Your task to perform on an android device: open app "Instagram" (install if not already installed) and enter user name: "nobler@yahoo.com" and password: "foraging" Image 0: 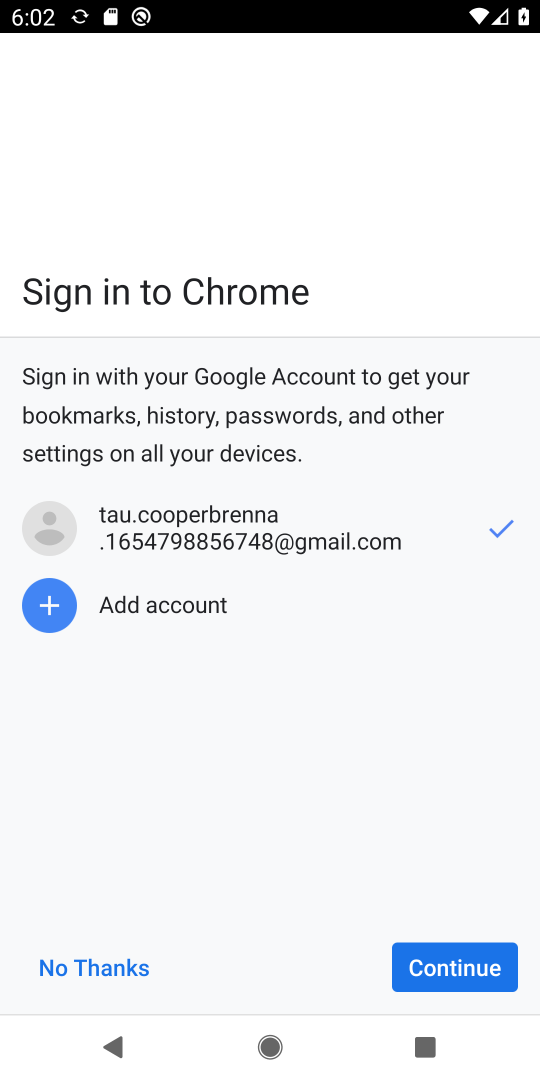
Step 0: press home button
Your task to perform on an android device: open app "Instagram" (install if not already installed) and enter user name: "nobler@yahoo.com" and password: "foraging" Image 1: 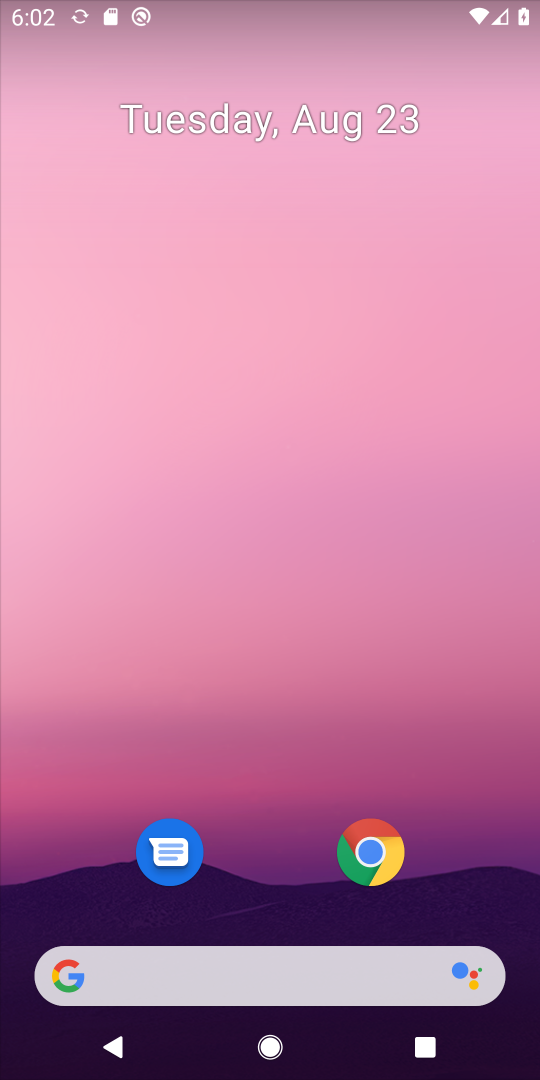
Step 1: drag from (212, 970) to (325, 47)
Your task to perform on an android device: open app "Instagram" (install if not already installed) and enter user name: "nobler@yahoo.com" and password: "foraging" Image 2: 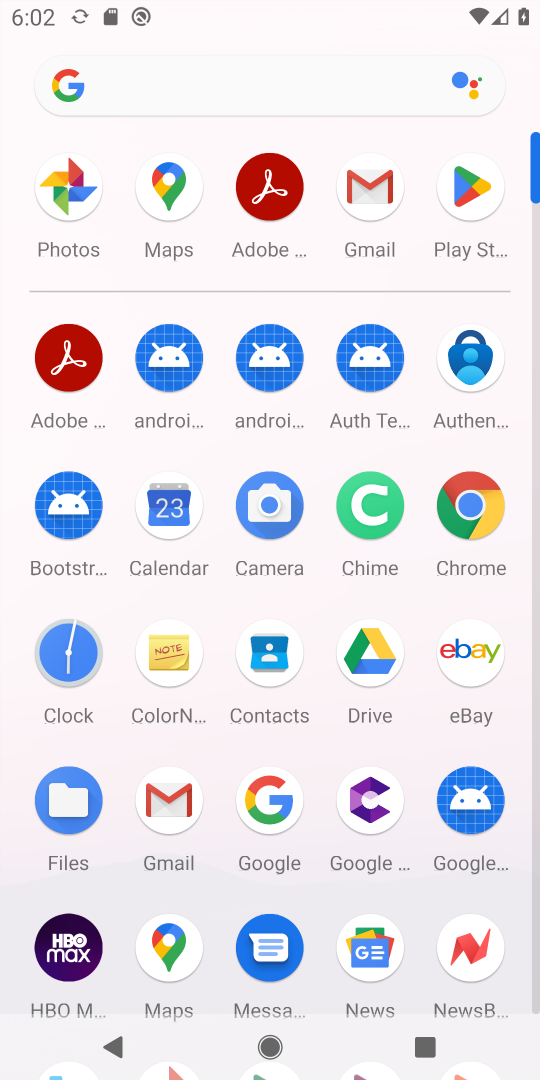
Step 2: click (471, 192)
Your task to perform on an android device: open app "Instagram" (install if not already installed) and enter user name: "nobler@yahoo.com" and password: "foraging" Image 3: 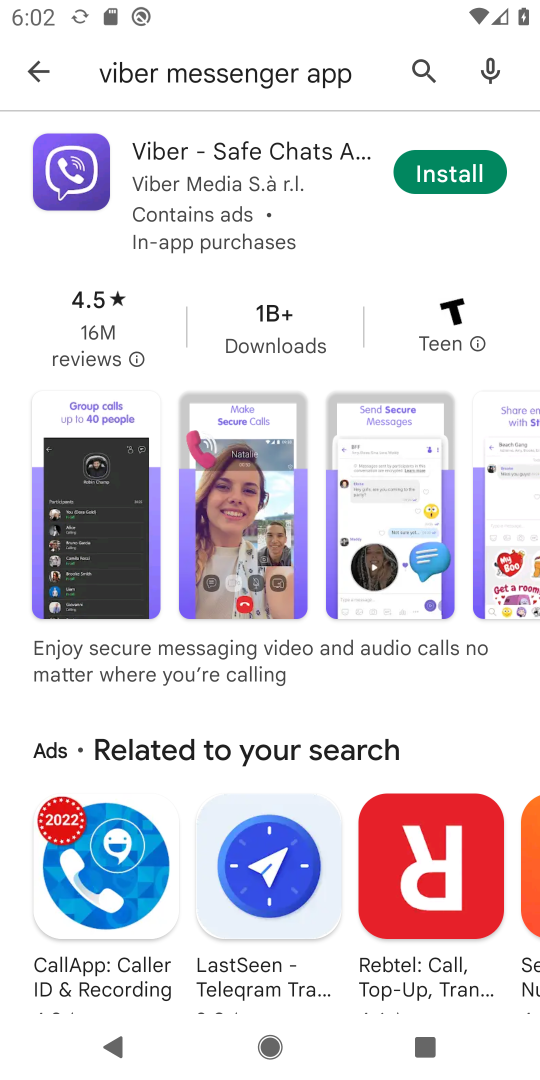
Step 3: press back button
Your task to perform on an android device: open app "Instagram" (install if not already installed) and enter user name: "nobler@yahoo.com" and password: "foraging" Image 4: 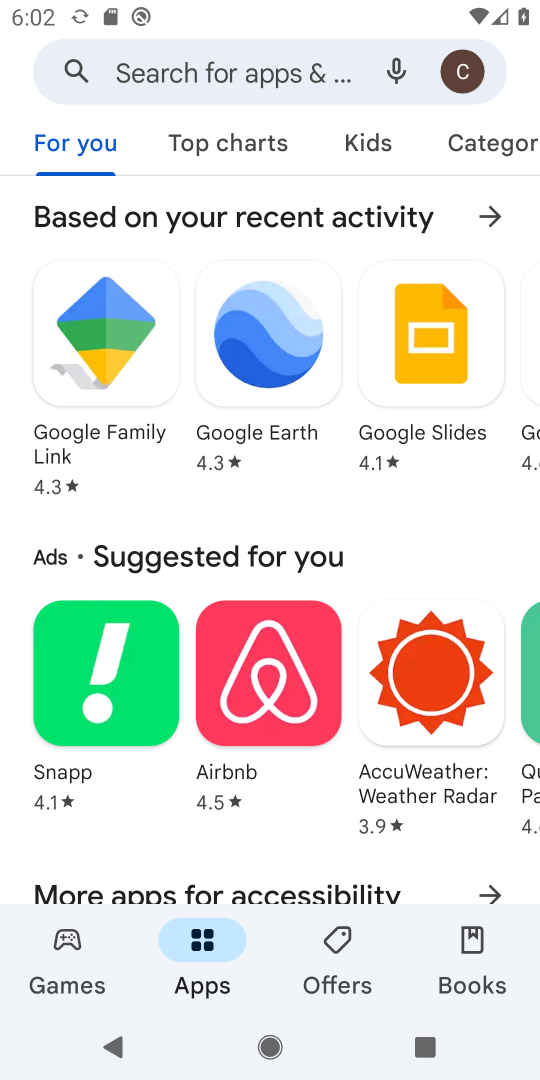
Step 4: click (267, 68)
Your task to perform on an android device: open app "Instagram" (install if not already installed) and enter user name: "nobler@yahoo.com" and password: "foraging" Image 5: 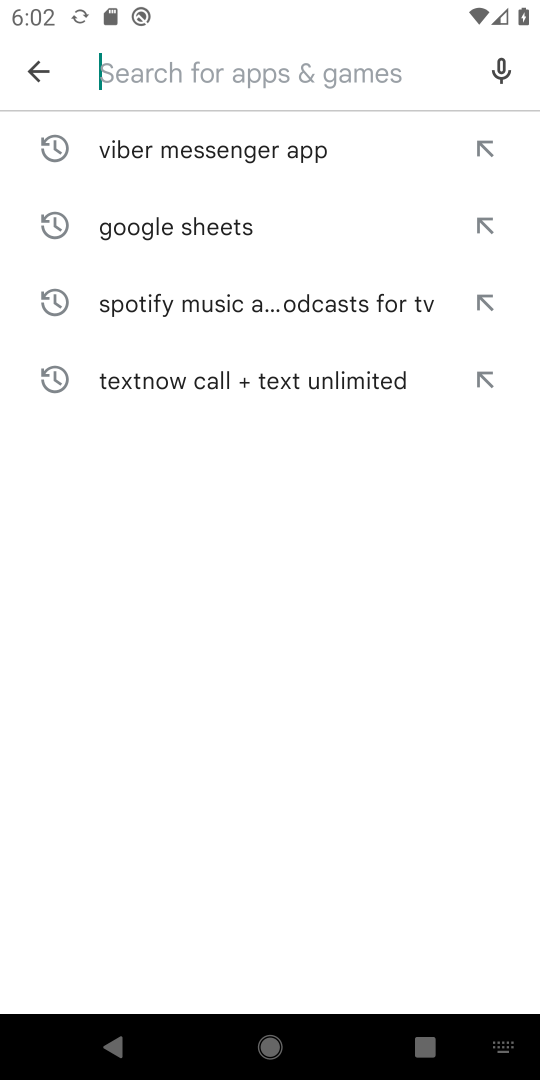
Step 5: type "instagram"
Your task to perform on an android device: open app "Instagram" (install if not already installed) and enter user name: "nobler@yahoo.com" and password: "foraging" Image 6: 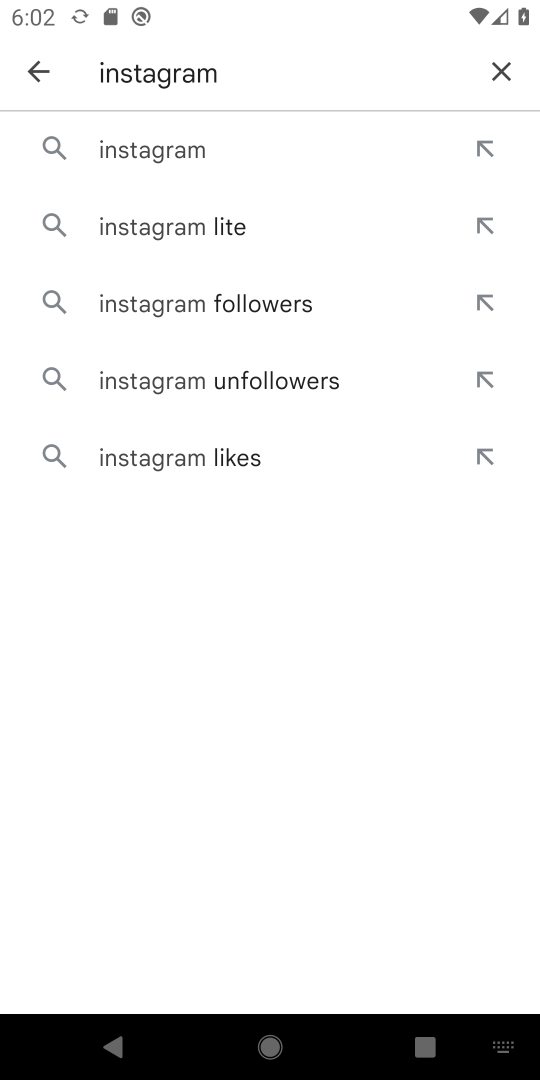
Step 6: click (193, 161)
Your task to perform on an android device: open app "Instagram" (install if not already installed) and enter user name: "nobler@yahoo.com" and password: "foraging" Image 7: 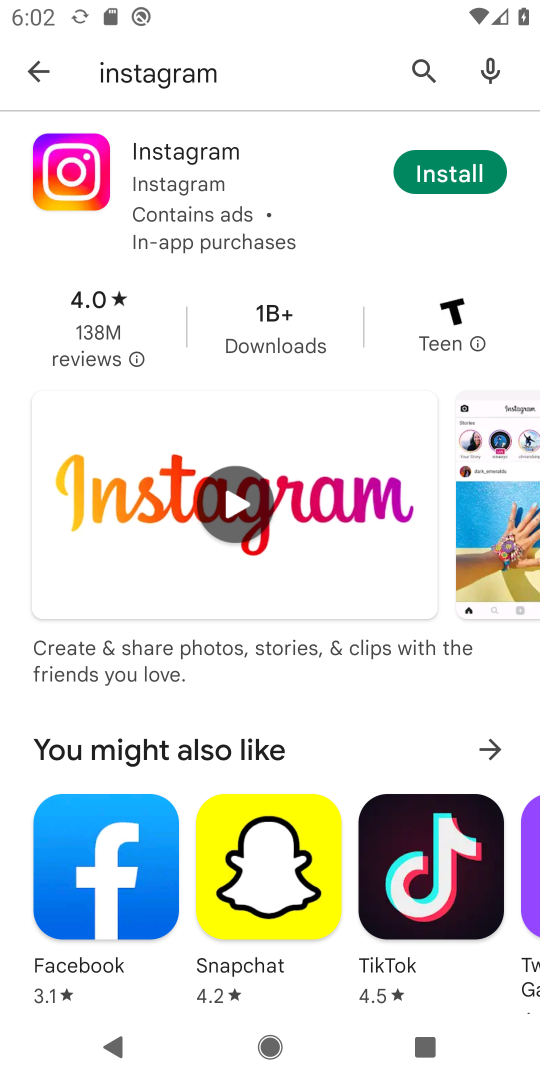
Step 7: click (449, 177)
Your task to perform on an android device: open app "Instagram" (install if not already installed) and enter user name: "nobler@yahoo.com" and password: "foraging" Image 8: 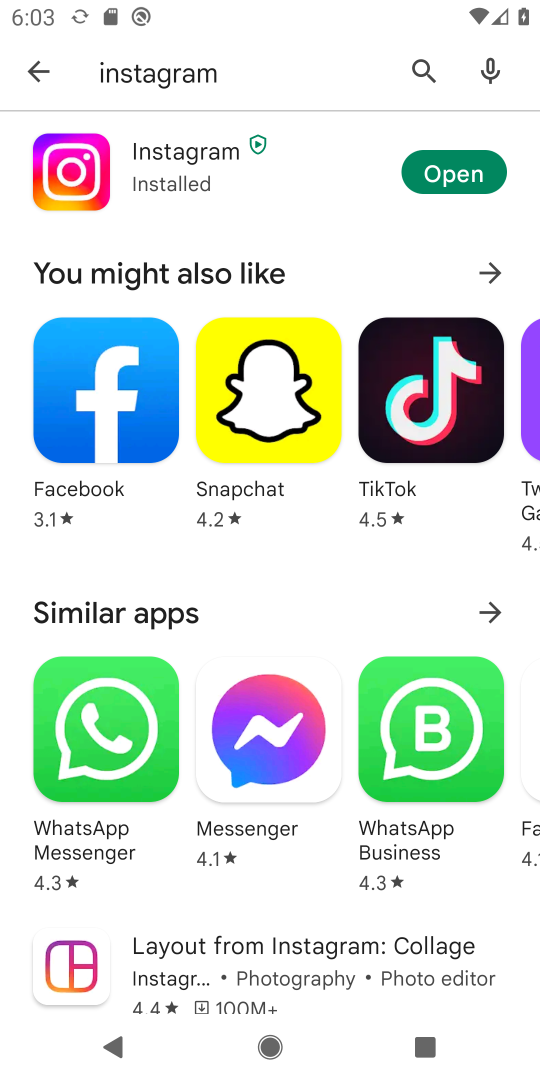
Step 8: click (457, 172)
Your task to perform on an android device: open app "Instagram" (install if not already installed) and enter user name: "nobler@yahoo.com" and password: "foraging" Image 9: 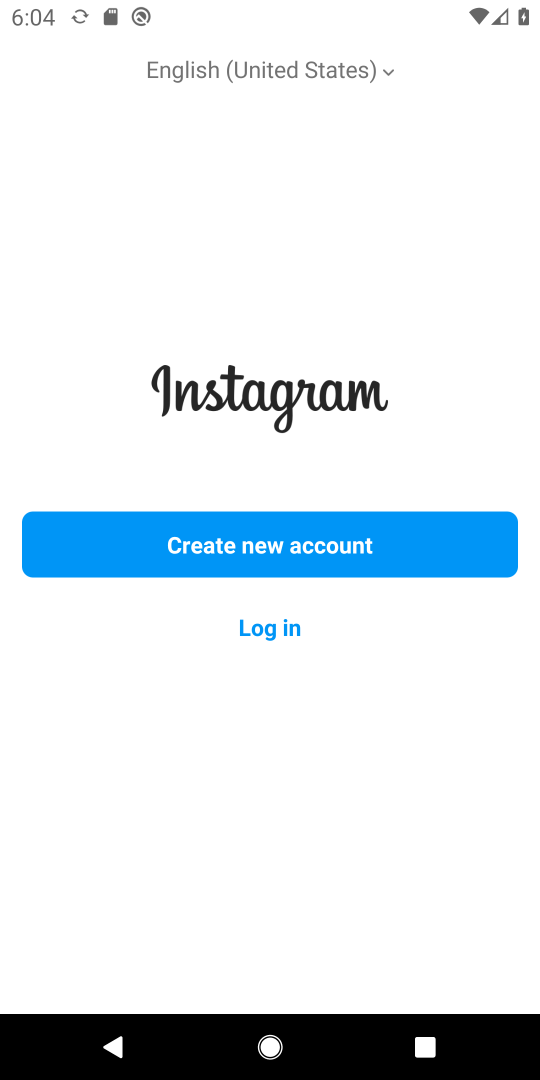
Step 9: click (275, 633)
Your task to perform on an android device: open app "Instagram" (install if not already installed) and enter user name: "nobler@yahoo.com" and password: "foraging" Image 10: 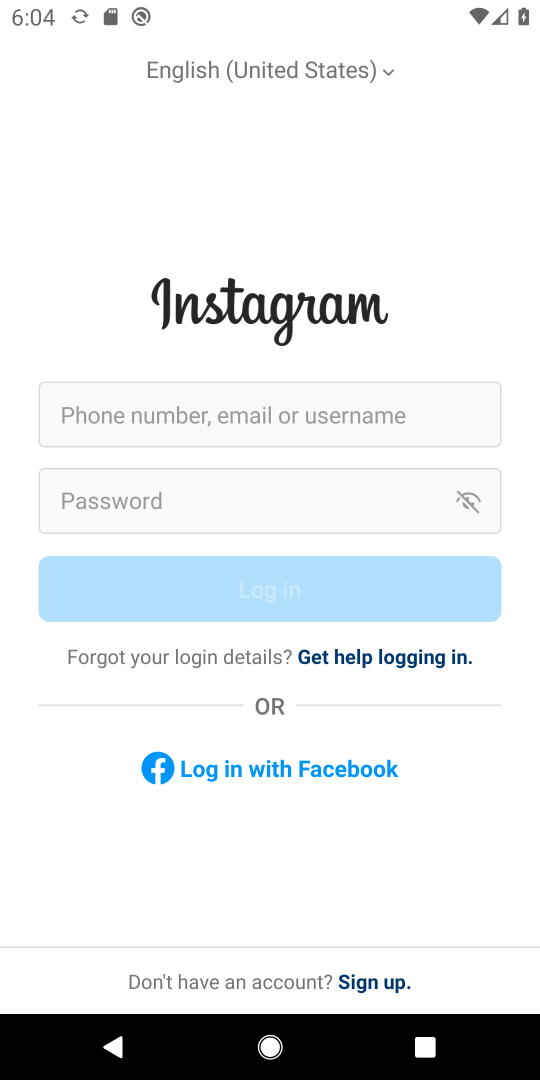
Step 10: click (374, 425)
Your task to perform on an android device: open app "Instagram" (install if not already installed) and enter user name: "nobler@yahoo.com" and password: "foraging" Image 11: 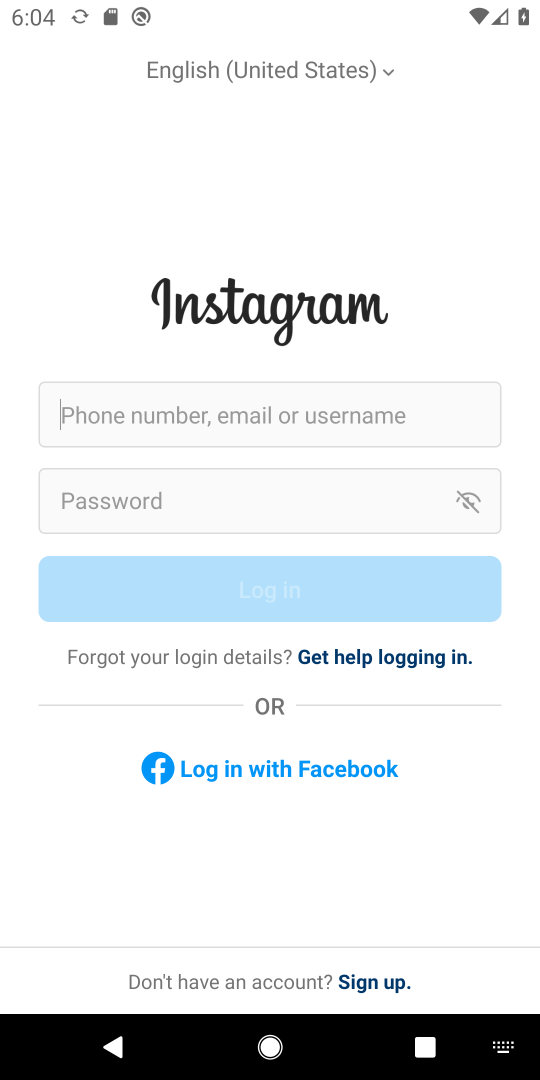
Step 11: type "nobler@yahoo.com"
Your task to perform on an android device: open app "Instagram" (install if not already installed) and enter user name: "nobler@yahoo.com" and password: "foraging" Image 12: 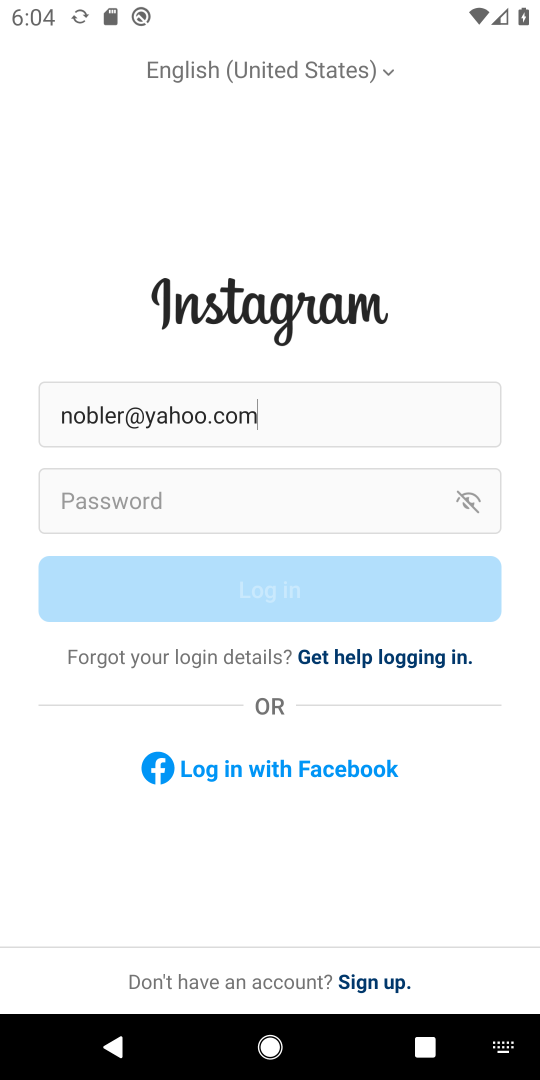
Step 12: click (243, 500)
Your task to perform on an android device: open app "Instagram" (install if not already installed) and enter user name: "nobler@yahoo.com" and password: "foraging" Image 13: 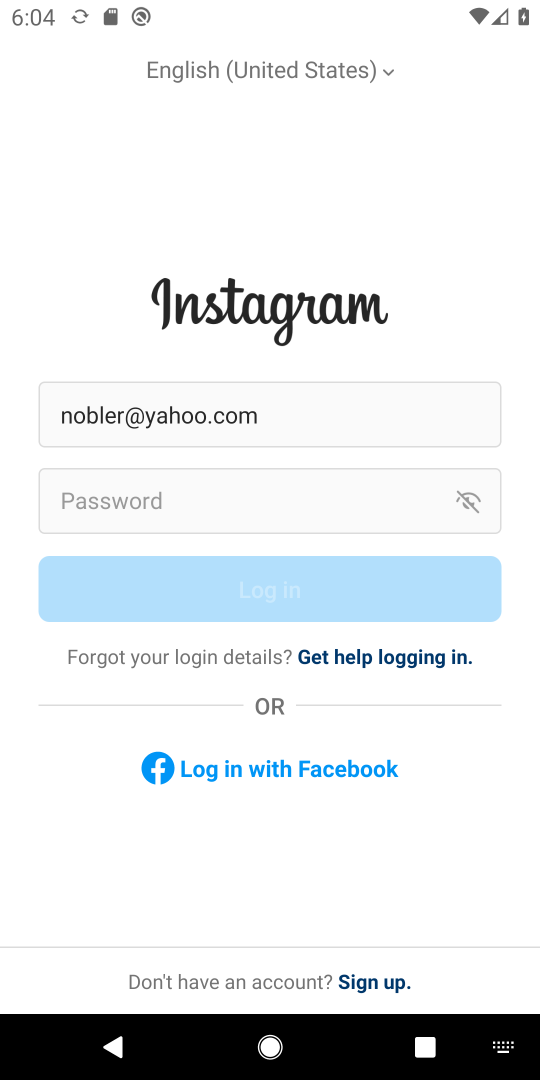
Step 13: type "foraging"
Your task to perform on an android device: open app "Instagram" (install if not already installed) and enter user name: "nobler@yahoo.com" and password: "foraging" Image 14: 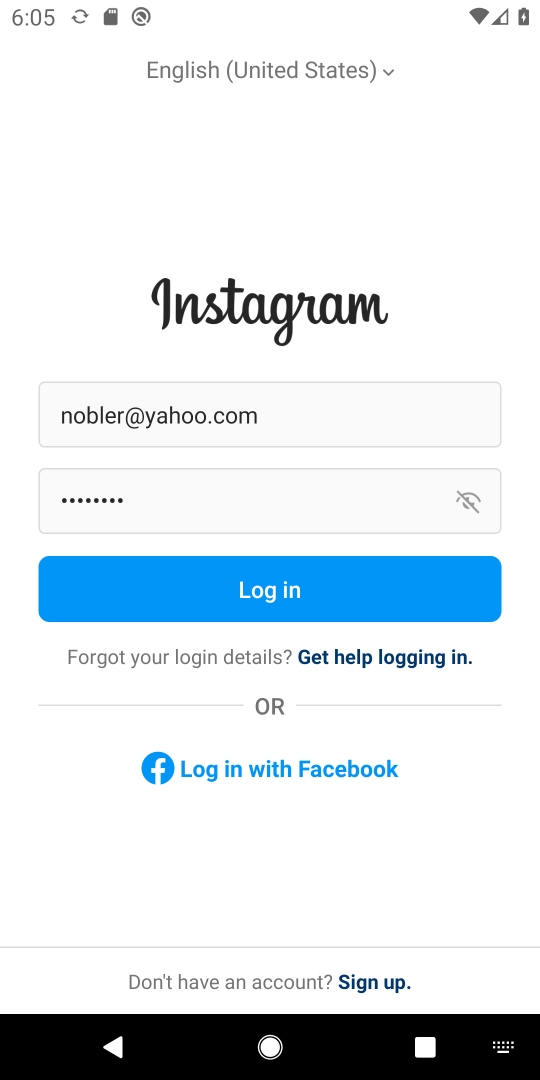
Step 14: task complete